Your task to perform on an android device: Open Chrome and go to the settings page Image 0: 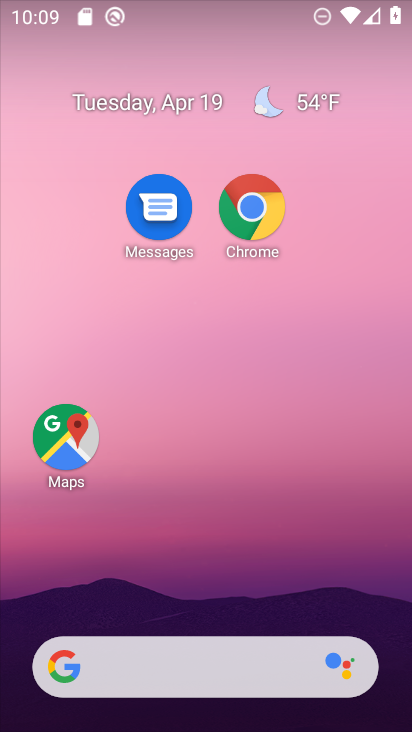
Step 0: drag from (193, 635) to (194, 262)
Your task to perform on an android device: Open Chrome and go to the settings page Image 1: 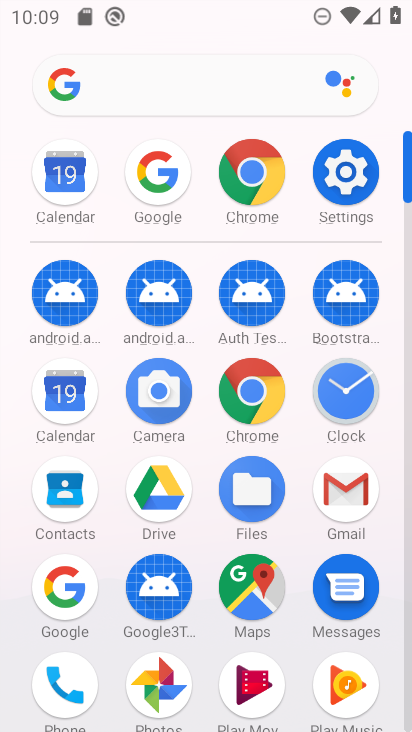
Step 1: click (248, 159)
Your task to perform on an android device: Open Chrome and go to the settings page Image 2: 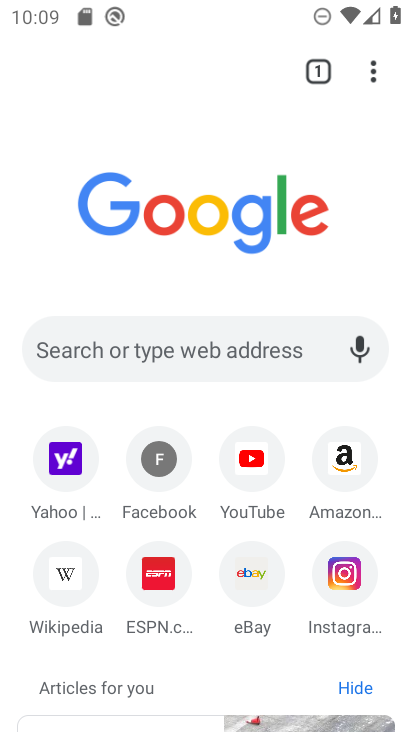
Step 2: click (373, 65)
Your task to perform on an android device: Open Chrome and go to the settings page Image 3: 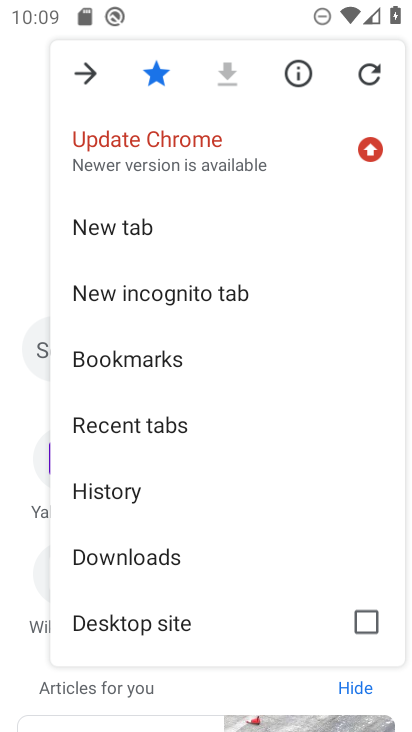
Step 3: drag from (142, 616) to (133, 203)
Your task to perform on an android device: Open Chrome and go to the settings page Image 4: 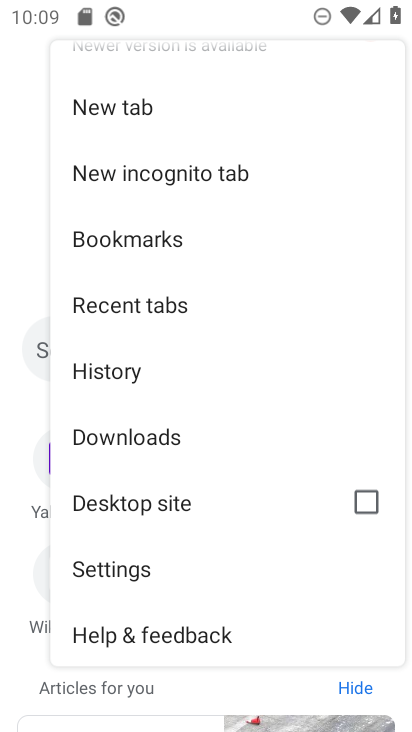
Step 4: click (122, 569)
Your task to perform on an android device: Open Chrome and go to the settings page Image 5: 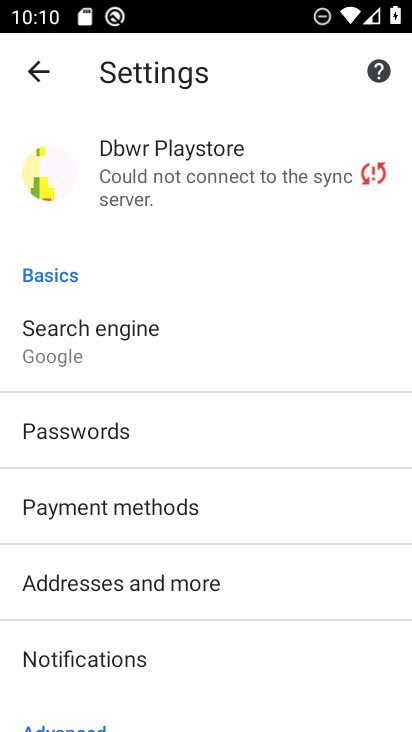
Step 5: task complete